Your task to perform on an android device: open sync settings in chrome Image 0: 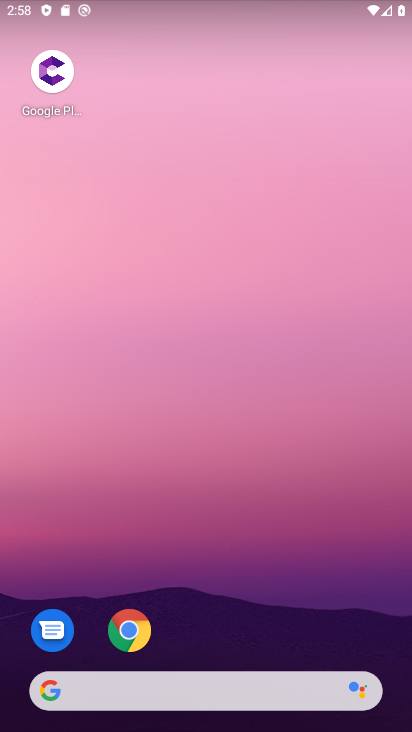
Step 0: click (142, 634)
Your task to perform on an android device: open sync settings in chrome Image 1: 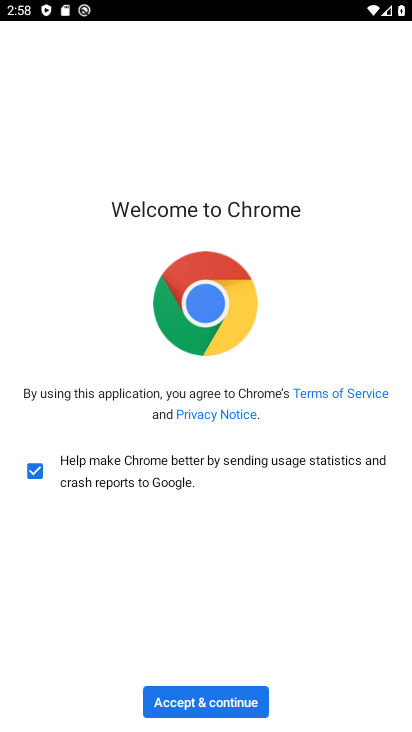
Step 1: click (206, 705)
Your task to perform on an android device: open sync settings in chrome Image 2: 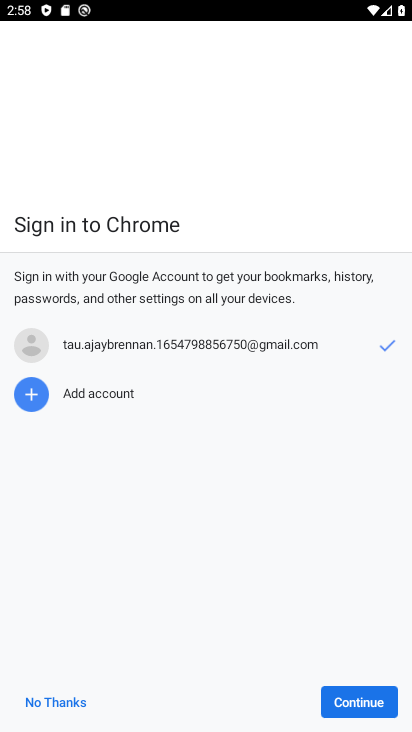
Step 2: click (359, 700)
Your task to perform on an android device: open sync settings in chrome Image 3: 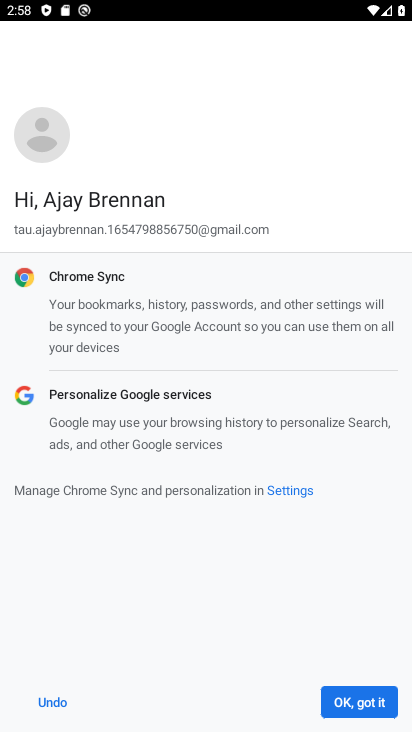
Step 3: click (375, 709)
Your task to perform on an android device: open sync settings in chrome Image 4: 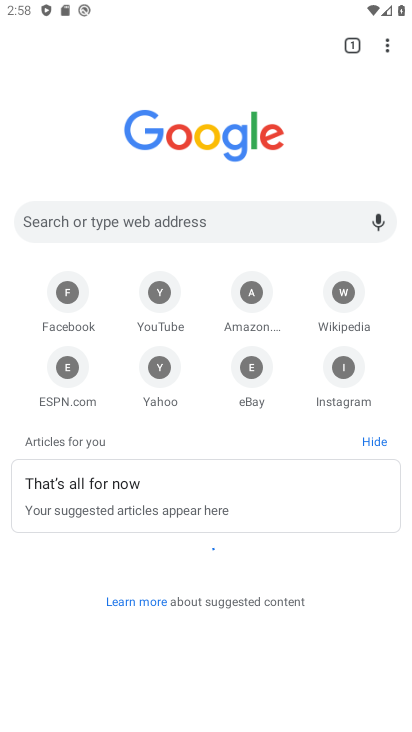
Step 4: drag from (382, 48) to (263, 374)
Your task to perform on an android device: open sync settings in chrome Image 5: 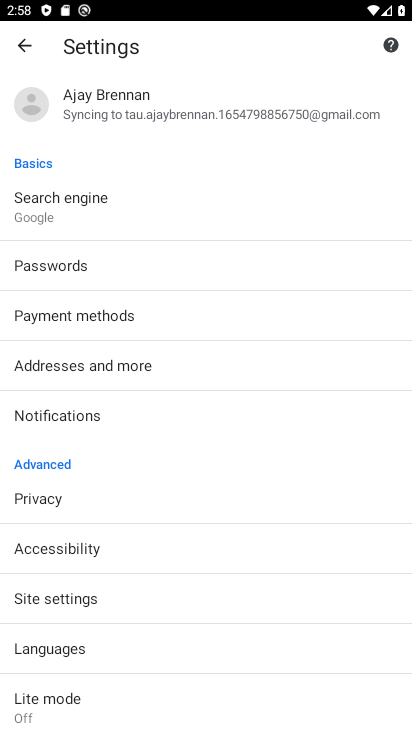
Step 5: click (82, 112)
Your task to perform on an android device: open sync settings in chrome Image 6: 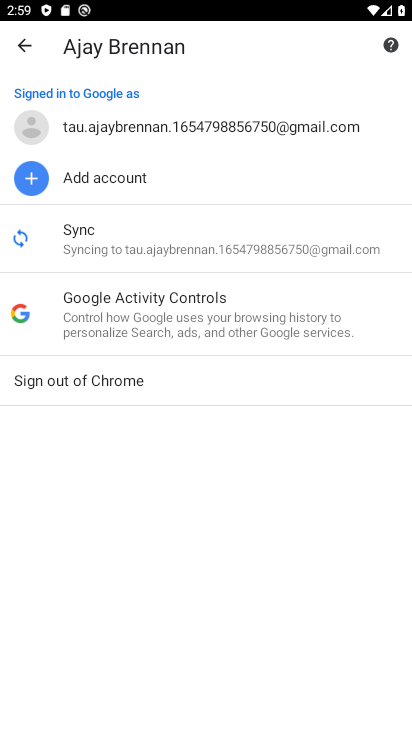
Step 6: click (85, 237)
Your task to perform on an android device: open sync settings in chrome Image 7: 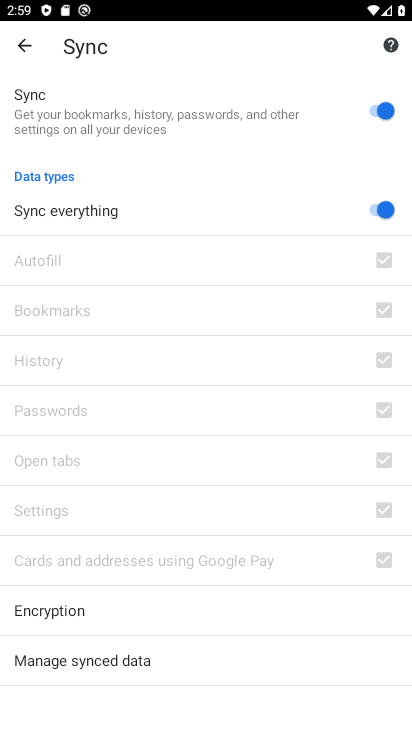
Step 7: task complete